Your task to perform on an android device: Open the calendar and show me this week's events? Image 0: 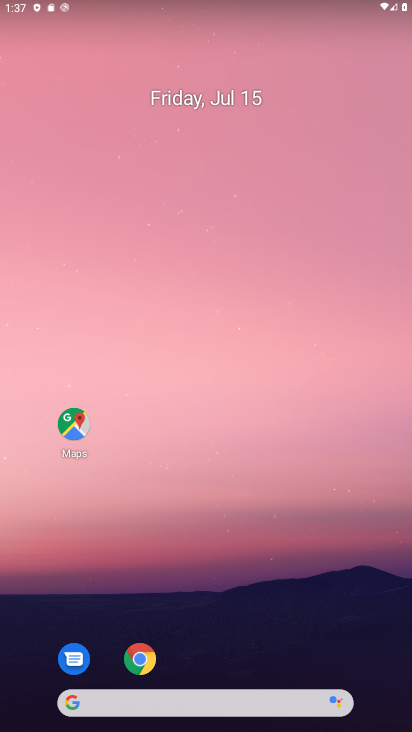
Step 0: drag from (228, 620) to (271, 330)
Your task to perform on an android device: Open the calendar and show me this week's events? Image 1: 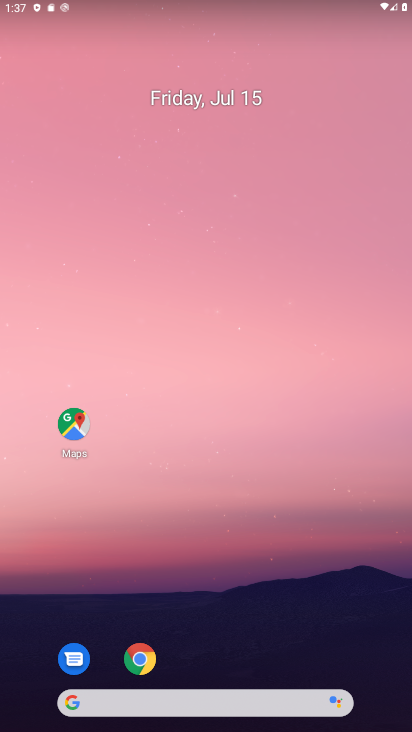
Step 1: drag from (201, 614) to (208, 271)
Your task to perform on an android device: Open the calendar and show me this week's events? Image 2: 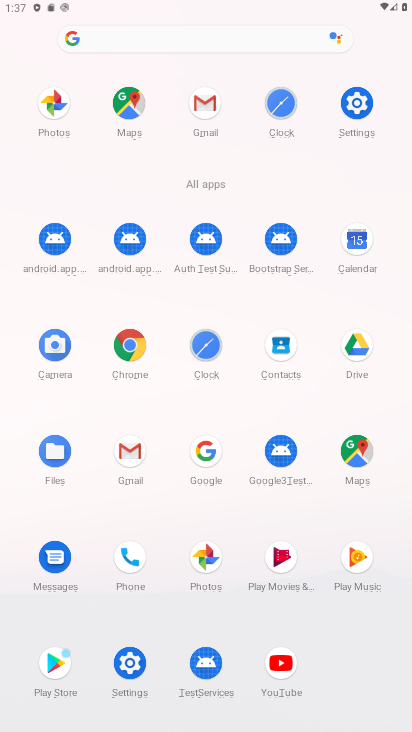
Step 2: click (364, 239)
Your task to perform on an android device: Open the calendar and show me this week's events? Image 3: 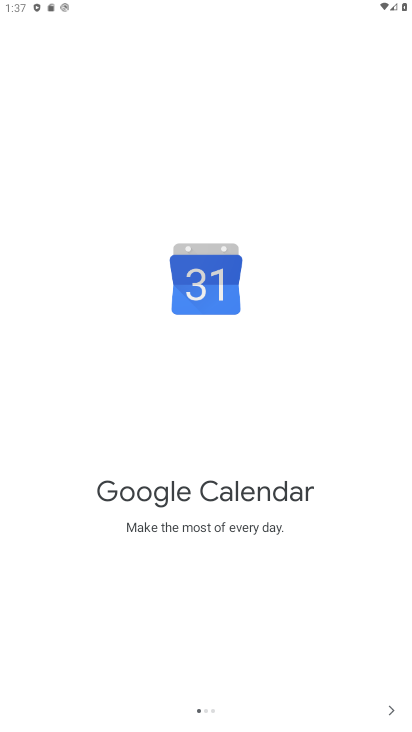
Step 3: click (392, 703)
Your task to perform on an android device: Open the calendar and show me this week's events? Image 4: 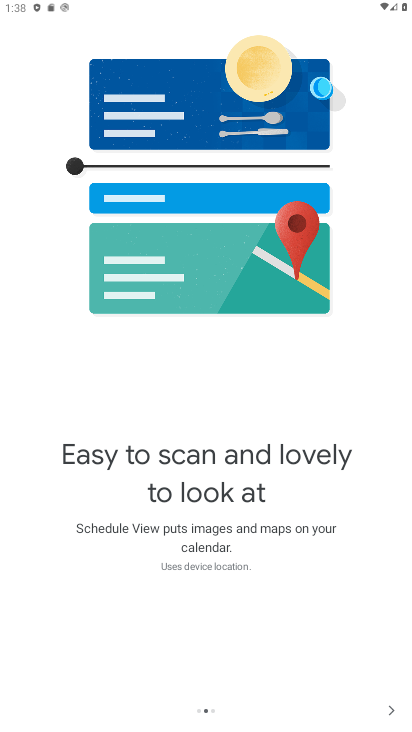
Step 4: click (391, 712)
Your task to perform on an android device: Open the calendar and show me this week's events? Image 5: 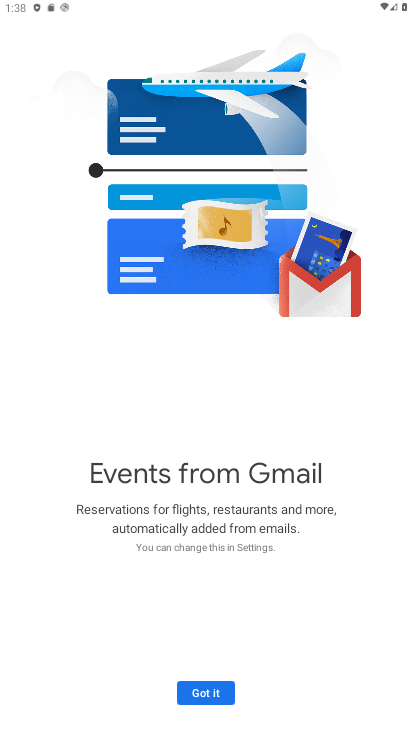
Step 5: click (196, 696)
Your task to perform on an android device: Open the calendar and show me this week's events? Image 6: 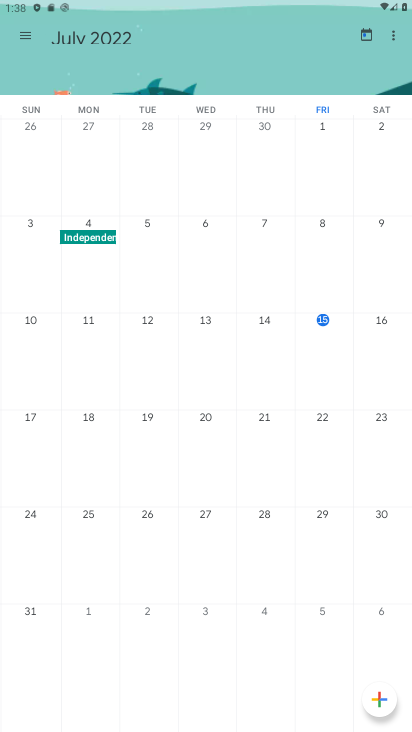
Step 6: click (24, 28)
Your task to perform on an android device: Open the calendar and show me this week's events? Image 7: 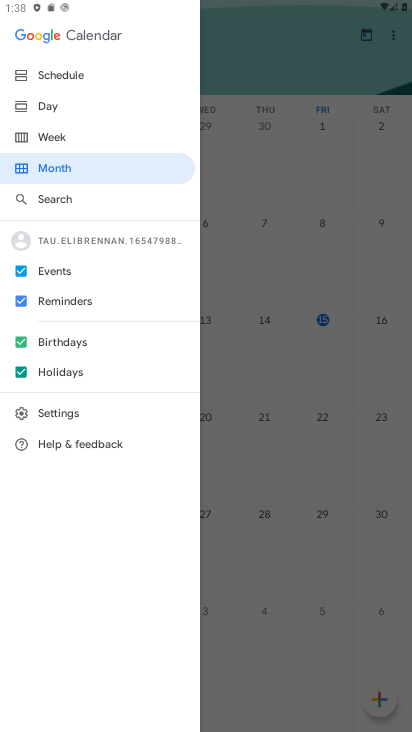
Step 7: click (46, 137)
Your task to perform on an android device: Open the calendar and show me this week's events? Image 8: 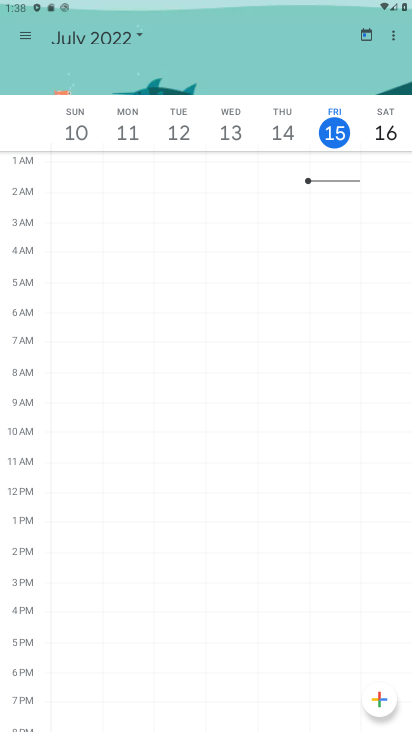
Step 8: task complete